Your task to perform on an android device: open wifi settings Image 0: 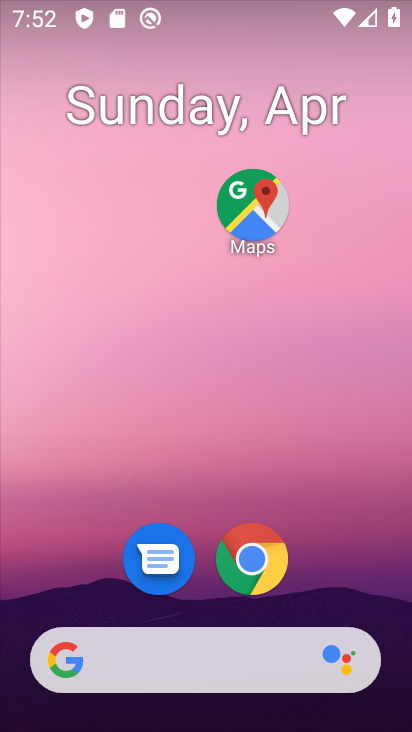
Step 0: drag from (117, 472) to (284, 133)
Your task to perform on an android device: open wifi settings Image 1: 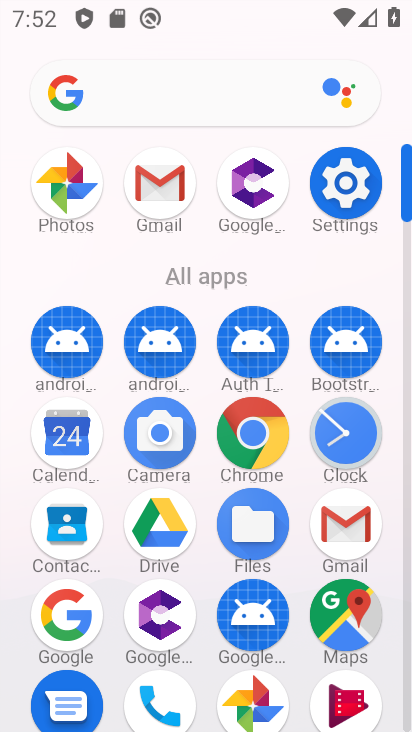
Step 1: click (328, 187)
Your task to perform on an android device: open wifi settings Image 2: 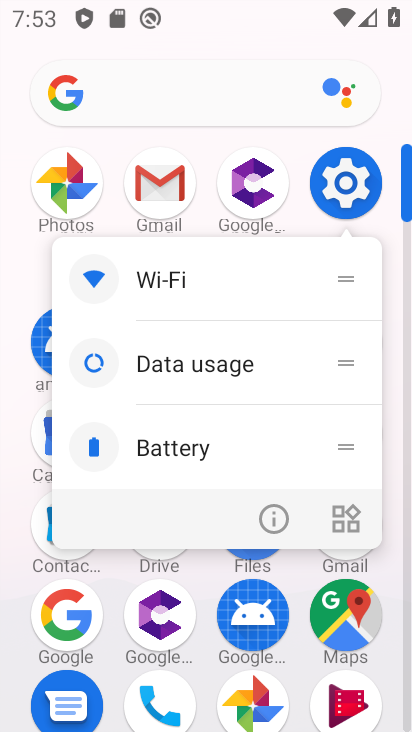
Step 2: click (194, 269)
Your task to perform on an android device: open wifi settings Image 3: 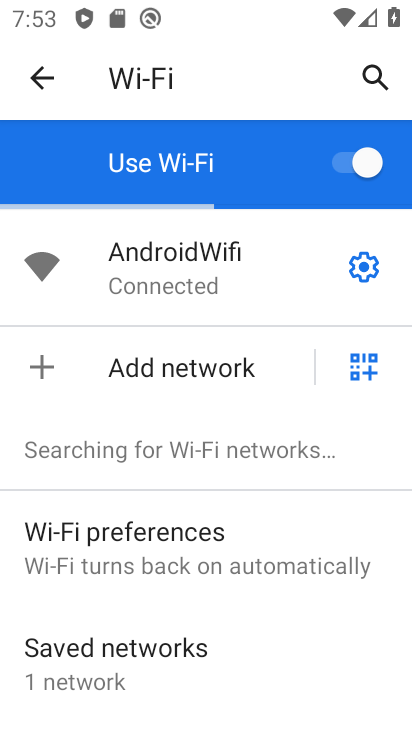
Step 3: click (358, 269)
Your task to perform on an android device: open wifi settings Image 4: 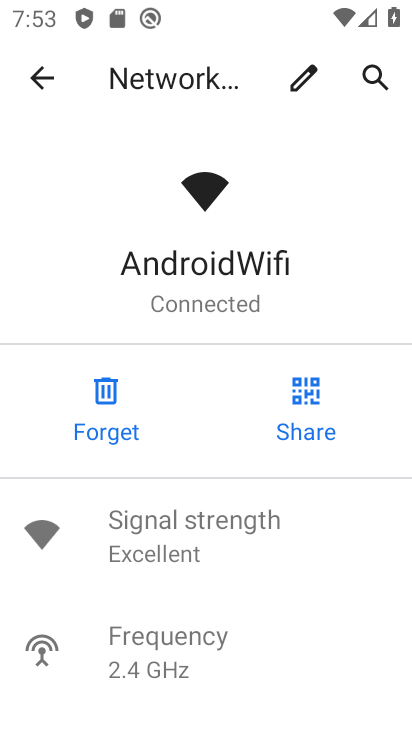
Step 4: task complete